Your task to perform on an android device: change the upload size in google photos Image 0: 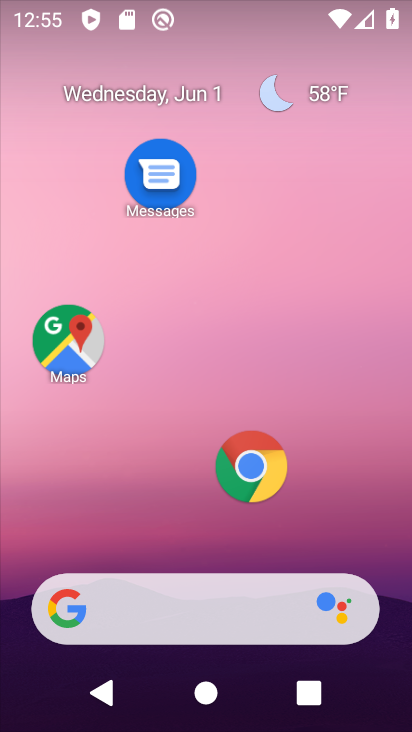
Step 0: drag from (154, 727) to (151, 49)
Your task to perform on an android device: change the upload size in google photos Image 1: 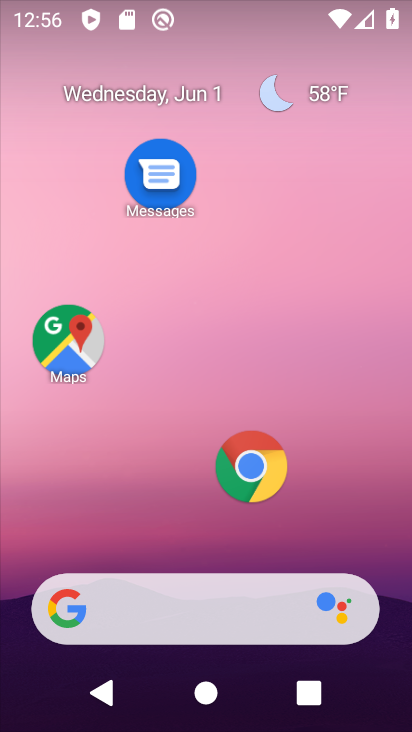
Step 1: drag from (166, 722) to (229, 17)
Your task to perform on an android device: change the upload size in google photos Image 2: 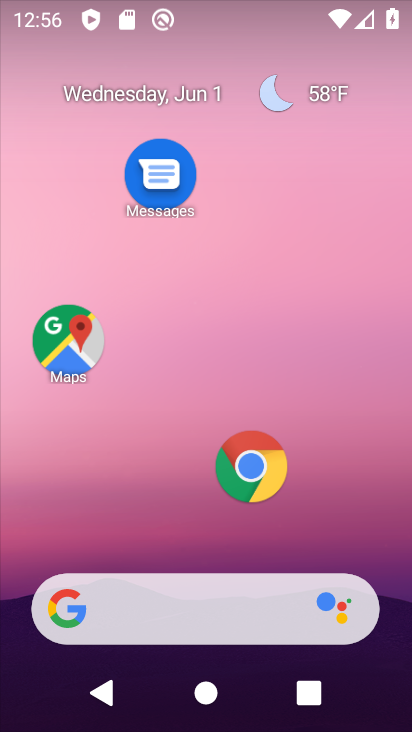
Step 2: drag from (177, 724) to (197, 29)
Your task to perform on an android device: change the upload size in google photos Image 3: 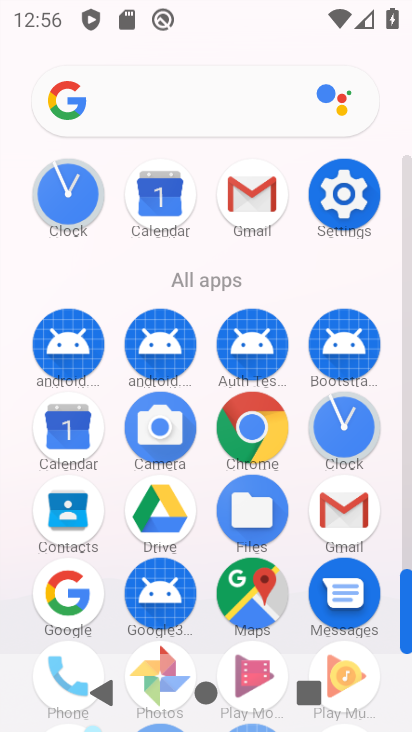
Step 3: drag from (116, 623) to (129, 249)
Your task to perform on an android device: change the upload size in google photos Image 4: 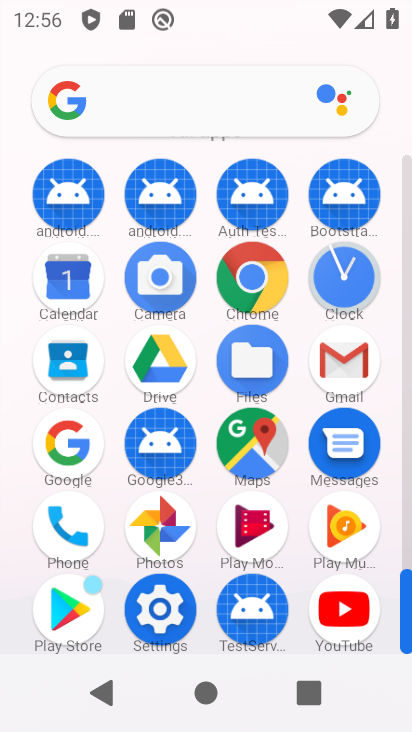
Step 4: click (145, 549)
Your task to perform on an android device: change the upload size in google photos Image 5: 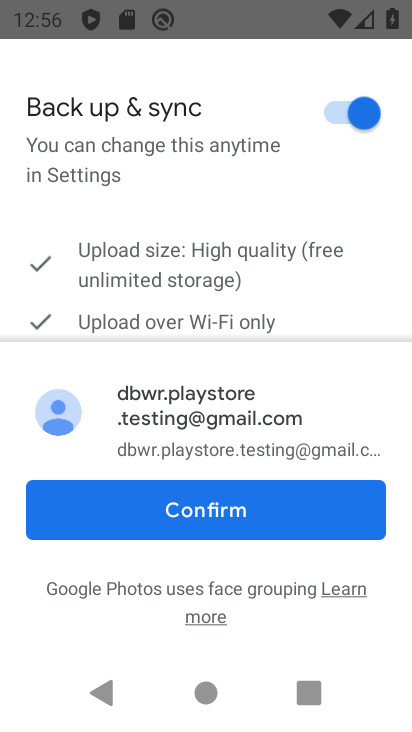
Step 5: click (225, 516)
Your task to perform on an android device: change the upload size in google photos Image 6: 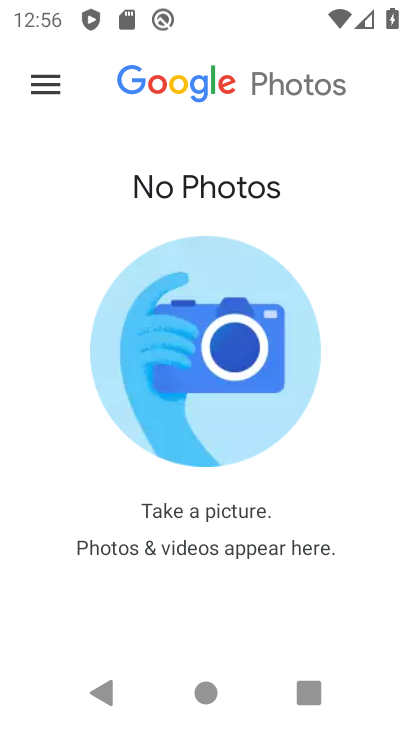
Step 6: click (40, 85)
Your task to perform on an android device: change the upload size in google photos Image 7: 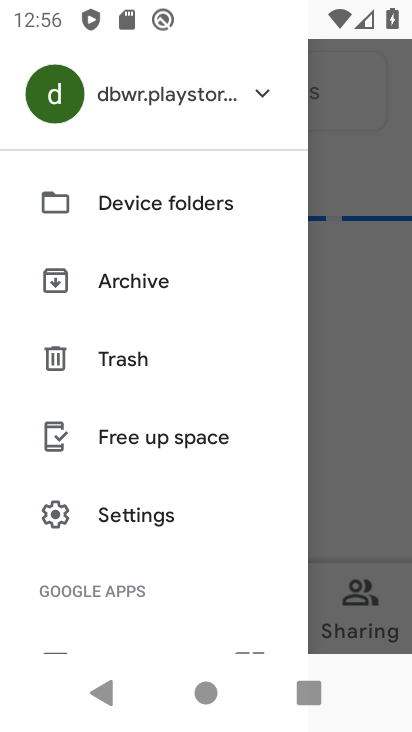
Step 7: click (123, 520)
Your task to perform on an android device: change the upload size in google photos Image 8: 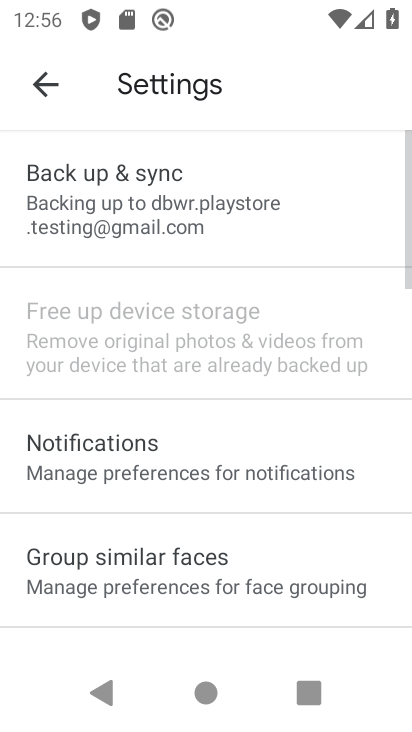
Step 8: click (206, 177)
Your task to perform on an android device: change the upload size in google photos Image 9: 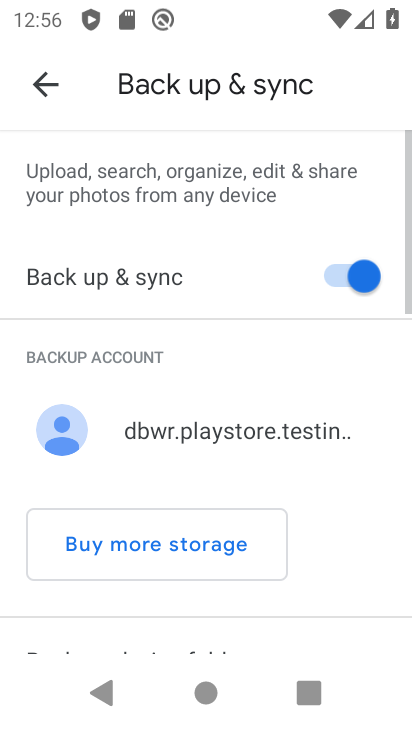
Step 9: drag from (360, 535) to (248, 256)
Your task to perform on an android device: change the upload size in google photos Image 10: 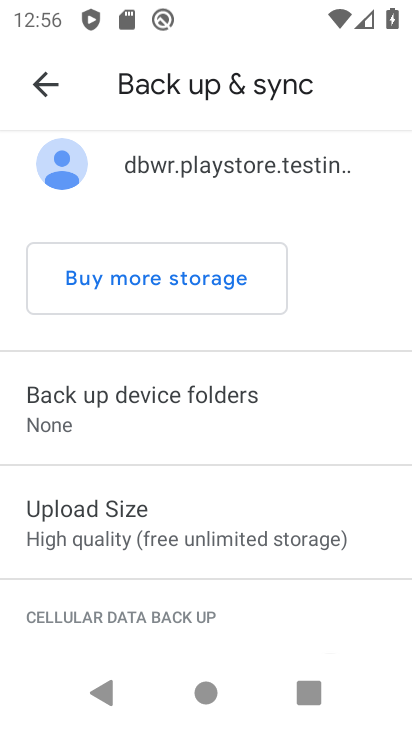
Step 10: click (180, 500)
Your task to perform on an android device: change the upload size in google photos Image 11: 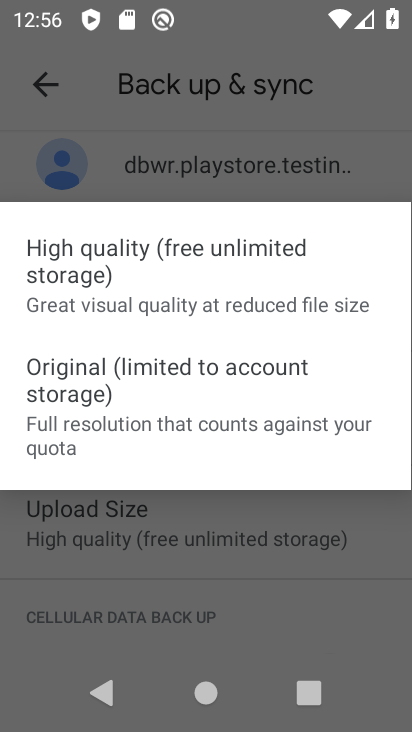
Step 11: click (190, 419)
Your task to perform on an android device: change the upload size in google photos Image 12: 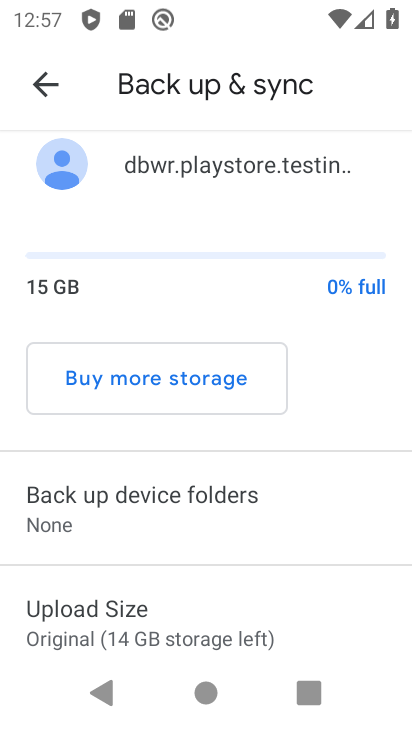
Step 12: task complete